Your task to perform on an android device: What's the weather going to be this weekend? Image 0: 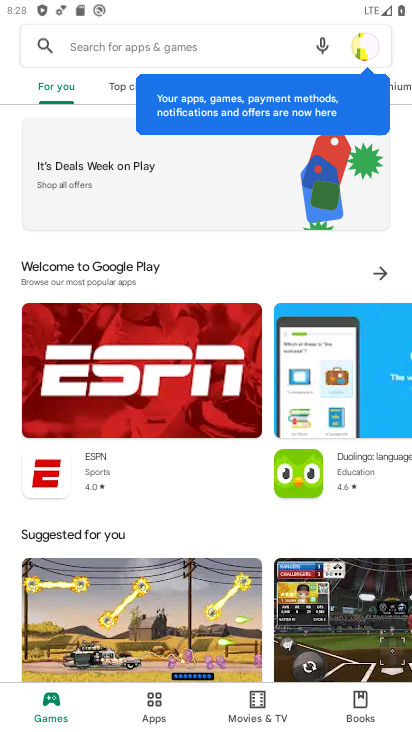
Step 0: press home button
Your task to perform on an android device: What's the weather going to be this weekend? Image 1: 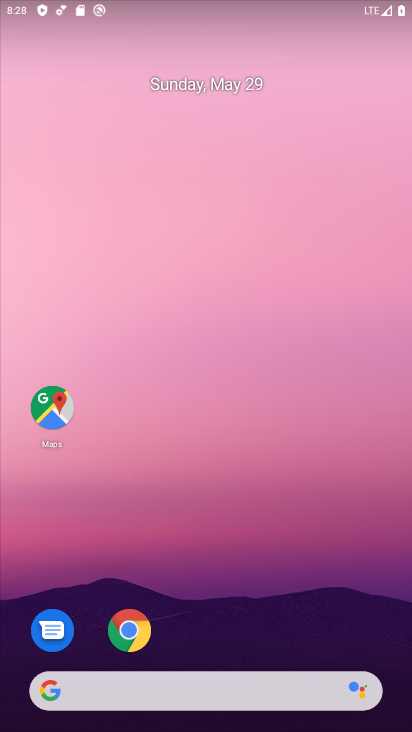
Step 1: drag from (191, 663) to (287, 213)
Your task to perform on an android device: What's the weather going to be this weekend? Image 2: 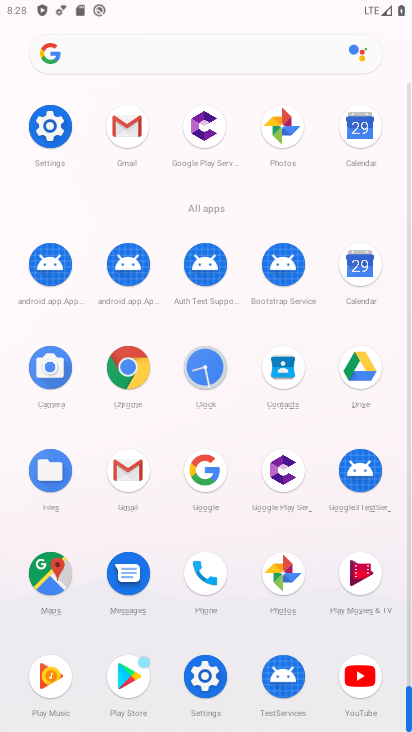
Step 2: click (189, 470)
Your task to perform on an android device: What's the weather going to be this weekend? Image 3: 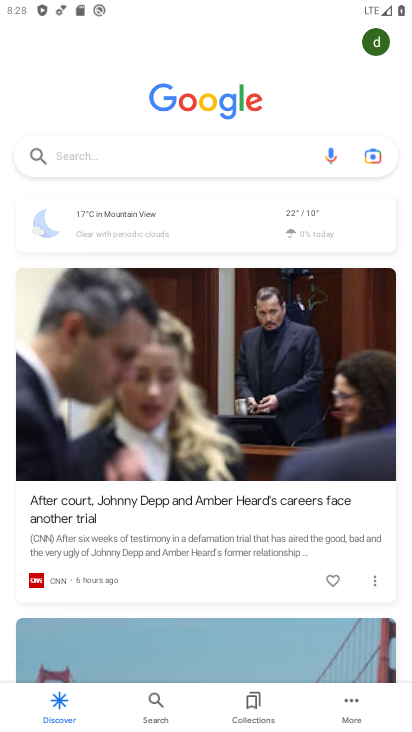
Step 3: click (312, 243)
Your task to perform on an android device: What's the weather going to be this weekend? Image 4: 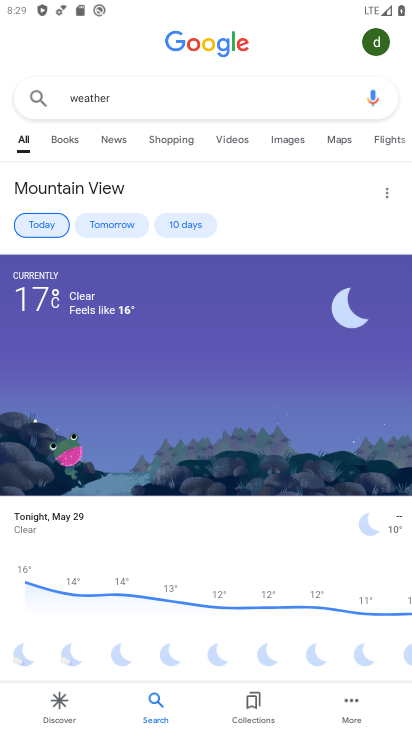
Step 4: click (194, 229)
Your task to perform on an android device: What's the weather going to be this weekend? Image 5: 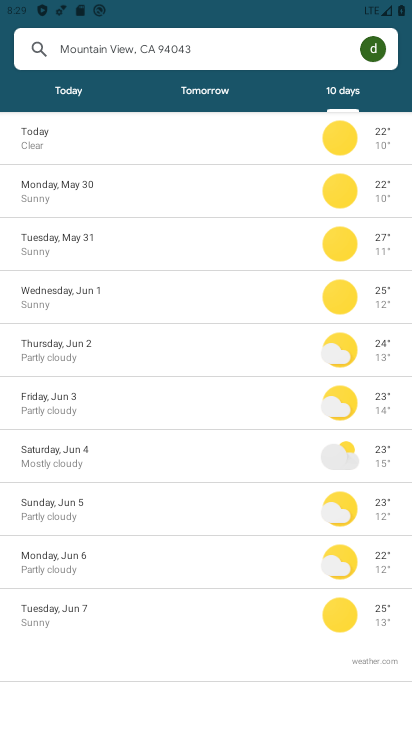
Step 5: task complete